Your task to perform on an android device: empty trash in the gmail app Image 0: 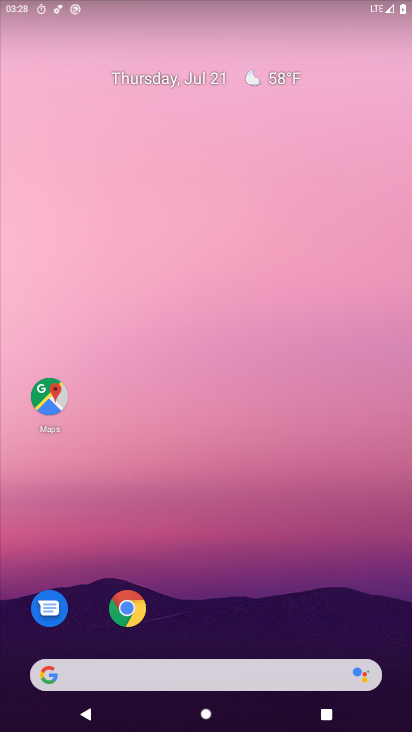
Step 0: drag from (220, 645) to (263, 177)
Your task to perform on an android device: empty trash in the gmail app Image 1: 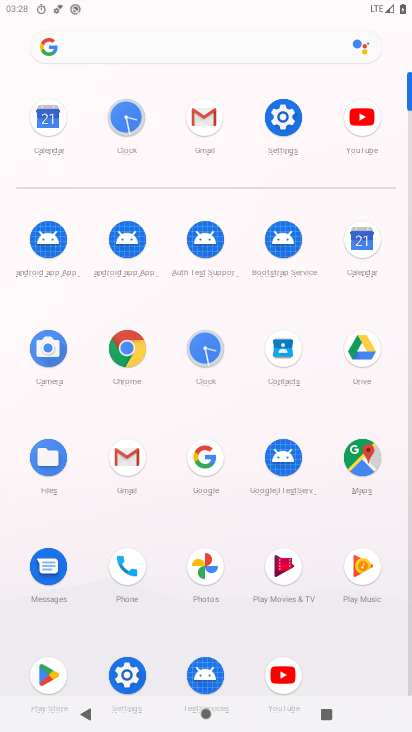
Step 1: click (201, 109)
Your task to perform on an android device: empty trash in the gmail app Image 2: 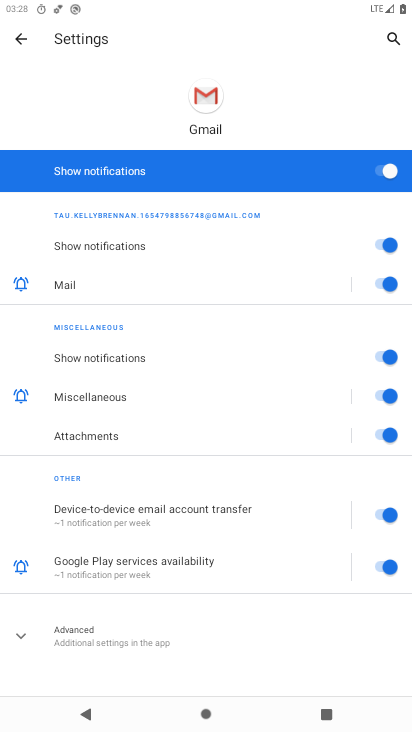
Step 2: click (20, 41)
Your task to perform on an android device: empty trash in the gmail app Image 3: 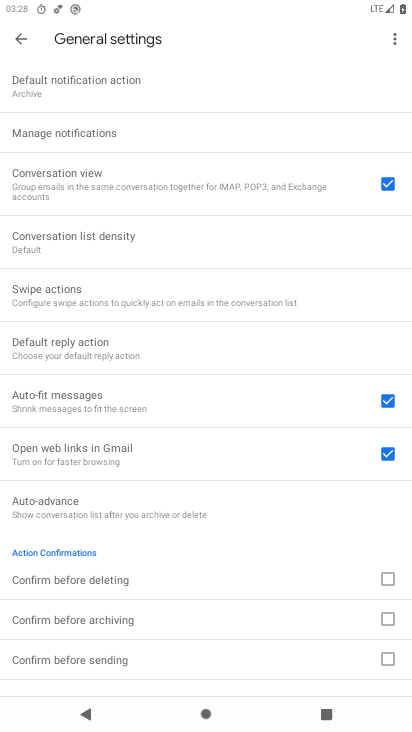
Step 3: click (12, 32)
Your task to perform on an android device: empty trash in the gmail app Image 4: 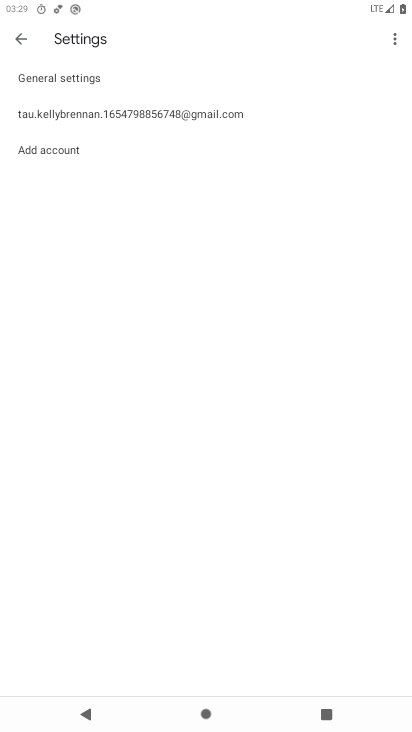
Step 4: click (22, 41)
Your task to perform on an android device: empty trash in the gmail app Image 5: 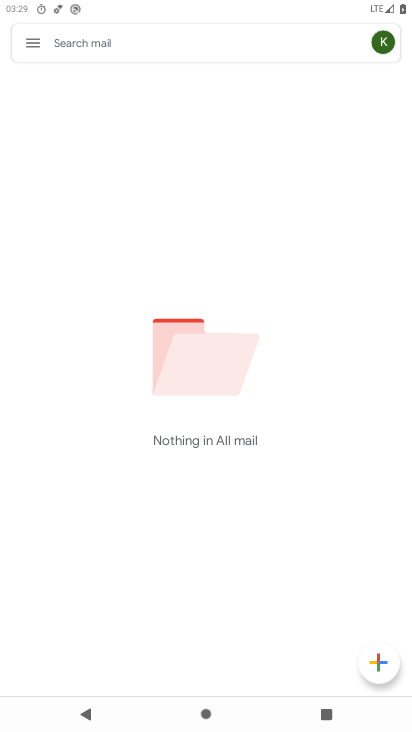
Step 5: click (28, 44)
Your task to perform on an android device: empty trash in the gmail app Image 6: 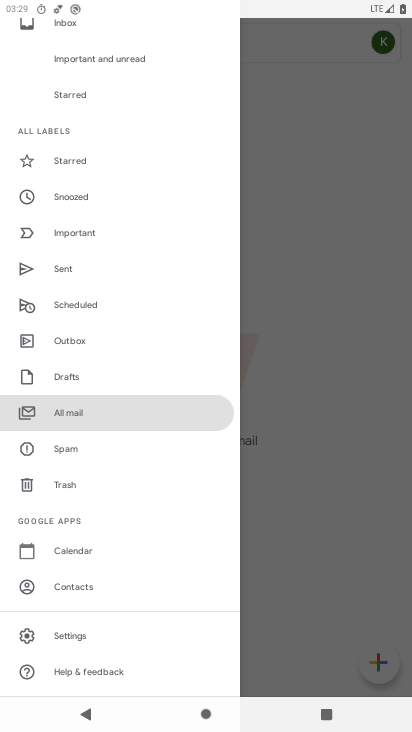
Step 6: click (58, 478)
Your task to perform on an android device: empty trash in the gmail app Image 7: 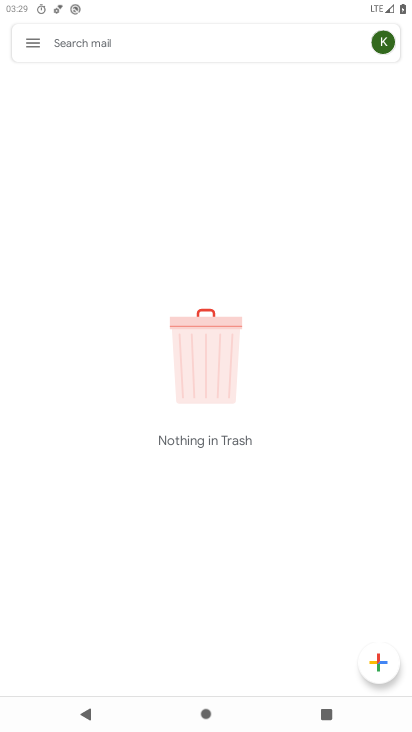
Step 7: task complete